Your task to perform on an android device: View the shopping cart on target.com. Search for usb-a to usb-b on target.com, select the first entry, add it to the cart, then select checkout. Image 0: 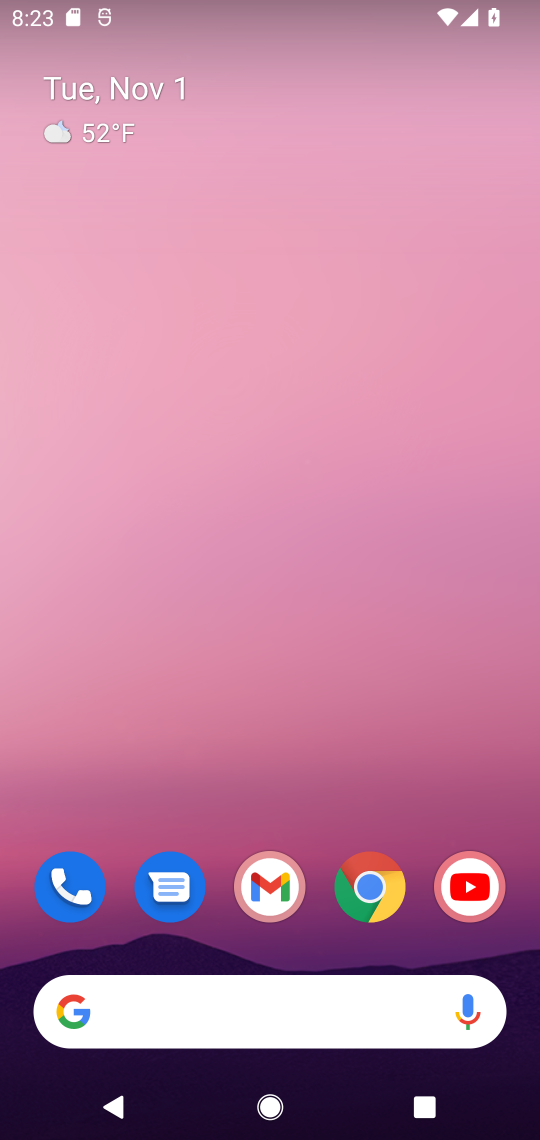
Step 0: drag from (274, 967) to (348, 4)
Your task to perform on an android device: View the shopping cart on target.com. Search for usb-a to usb-b on target.com, select the first entry, add it to the cart, then select checkout. Image 1: 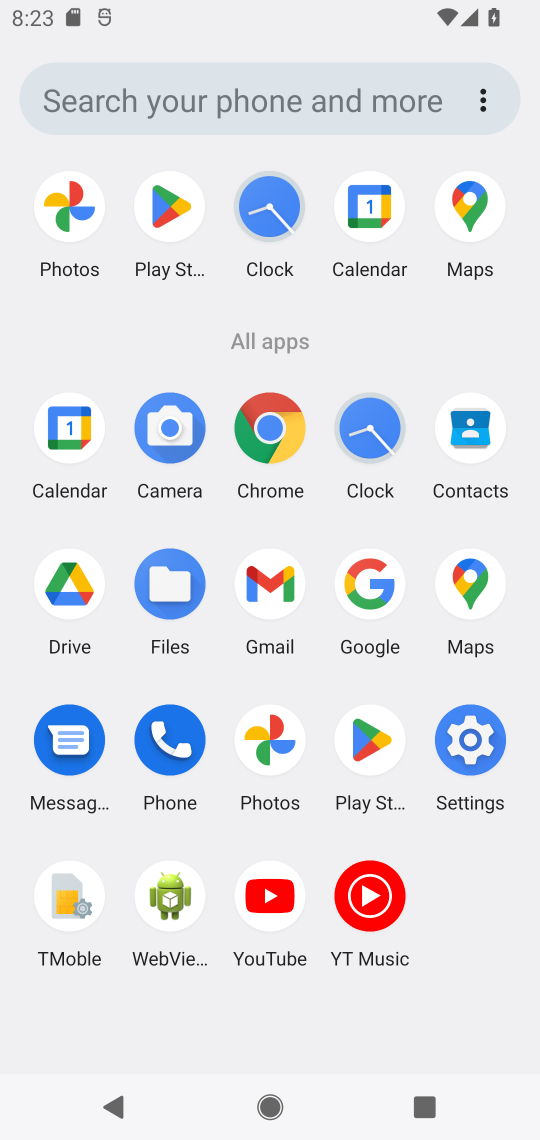
Step 1: click (360, 584)
Your task to perform on an android device: View the shopping cart on target.com. Search for usb-a to usb-b on target.com, select the first entry, add it to the cart, then select checkout. Image 2: 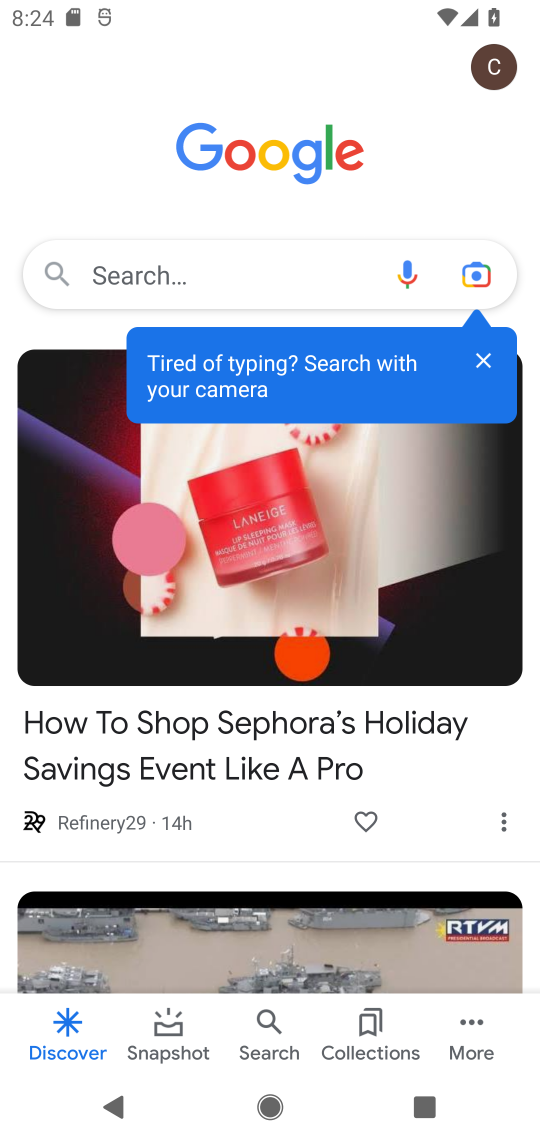
Step 2: click (304, 267)
Your task to perform on an android device: View the shopping cart on target.com. Search for usb-a to usb-b on target.com, select the first entry, add it to the cart, then select checkout. Image 3: 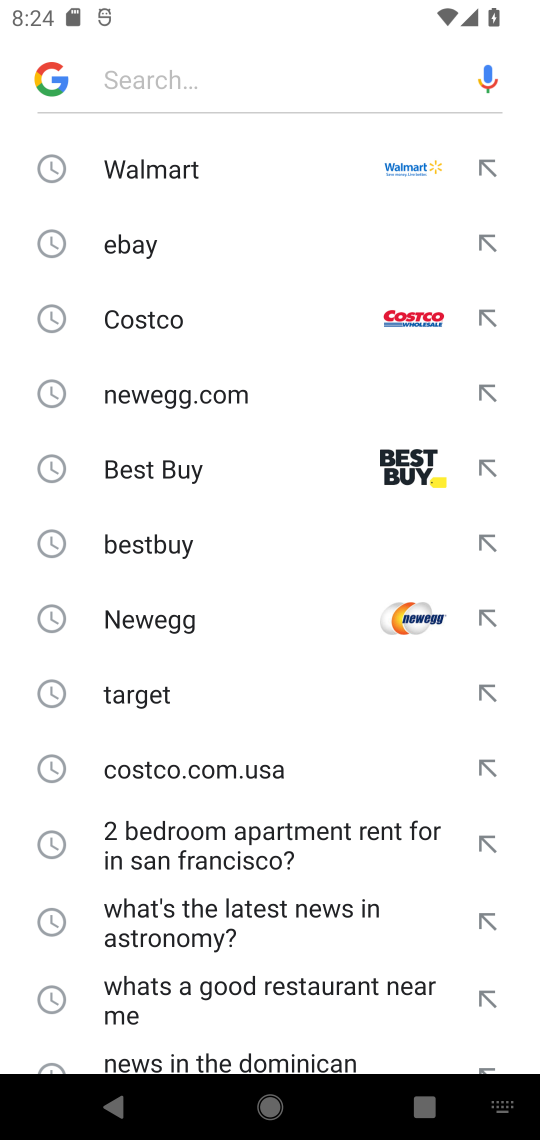
Step 3: type "target.com"
Your task to perform on an android device: View the shopping cart on target.com. Search for usb-a to usb-b on target.com, select the first entry, add it to the cart, then select checkout. Image 4: 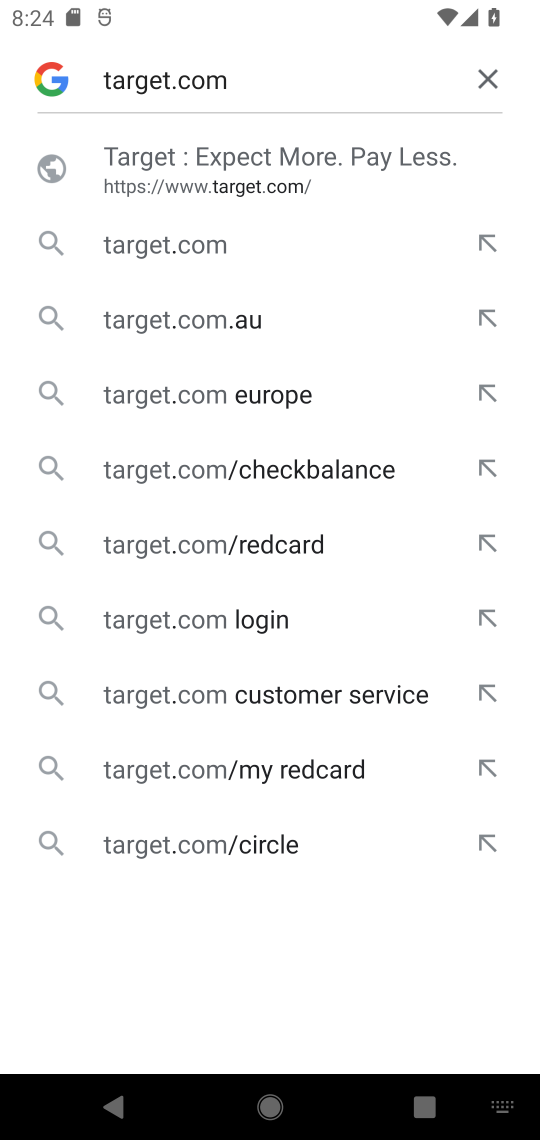
Step 4: click (161, 175)
Your task to perform on an android device: View the shopping cart on target.com. Search for usb-a to usb-b on target.com, select the first entry, add it to the cart, then select checkout. Image 5: 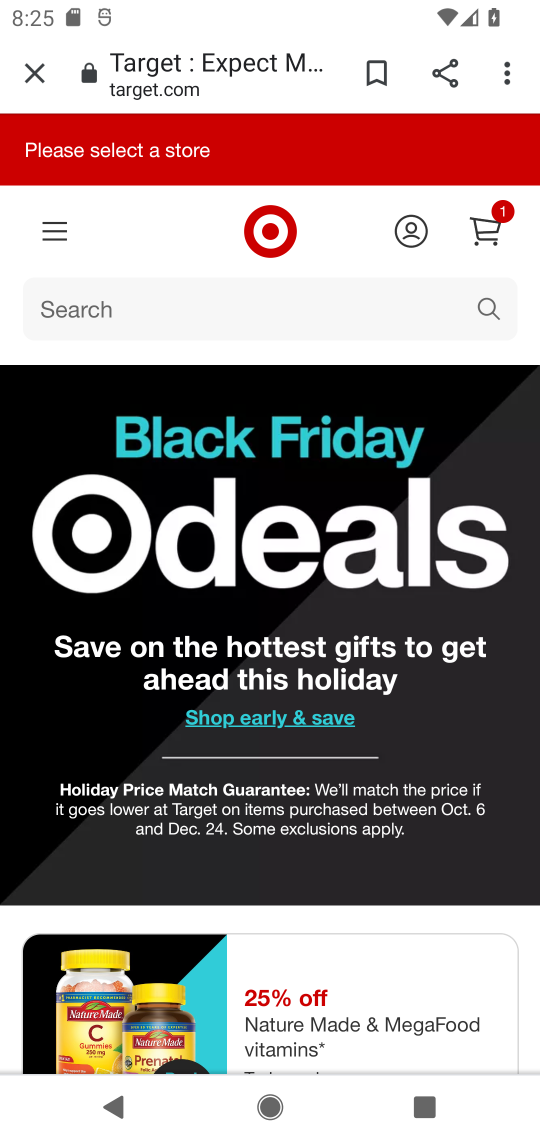
Step 5: click (259, 297)
Your task to perform on an android device: View the shopping cart on target.com. Search for usb-a to usb-b on target.com, select the first entry, add it to the cart, then select checkout. Image 6: 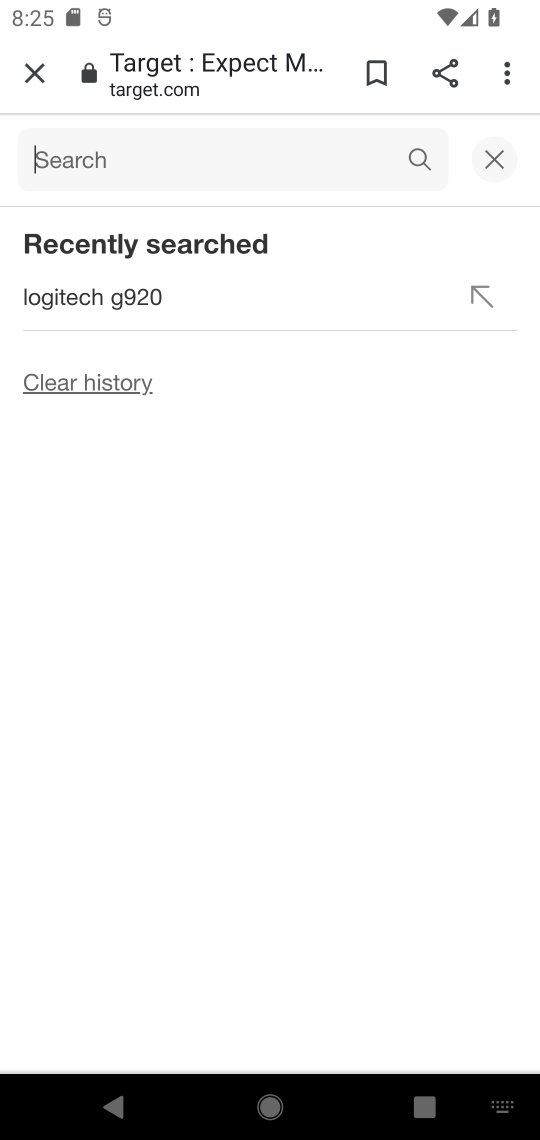
Step 6: type "usb-a to usb-b"
Your task to perform on an android device: View the shopping cart on target.com. Search for usb-a to usb-b on target.com, select the first entry, add it to the cart, then select checkout. Image 7: 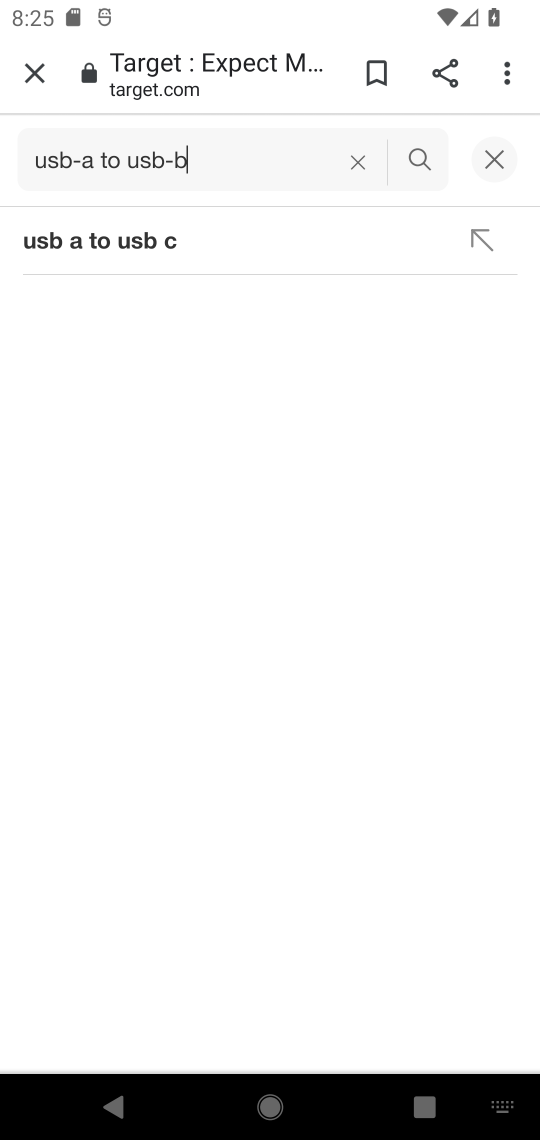
Step 7: click (158, 236)
Your task to perform on an android device: View the shopping cart on target.com. Search for usb-a to usb-b on target.com, select the first entry, add it to the cart, then select checkout. Image 8: 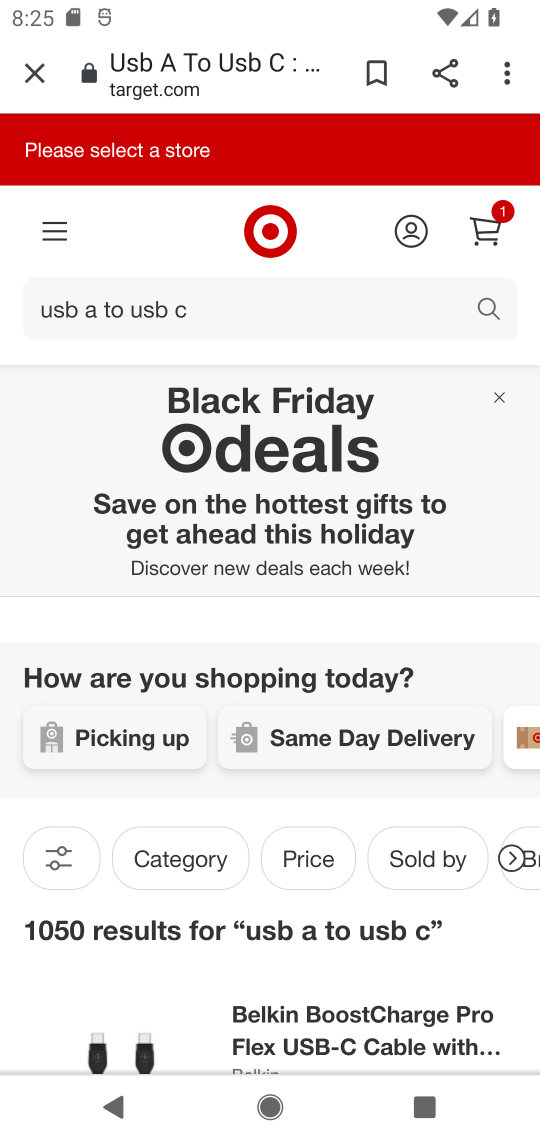
Step 8: click (279, 1038)
Your task to perform on an android device: View the shopping cart on target.com. Search for usb-a to usb-b on target.com, select the first entry, add it to the cart, then select checkout. Image 9: 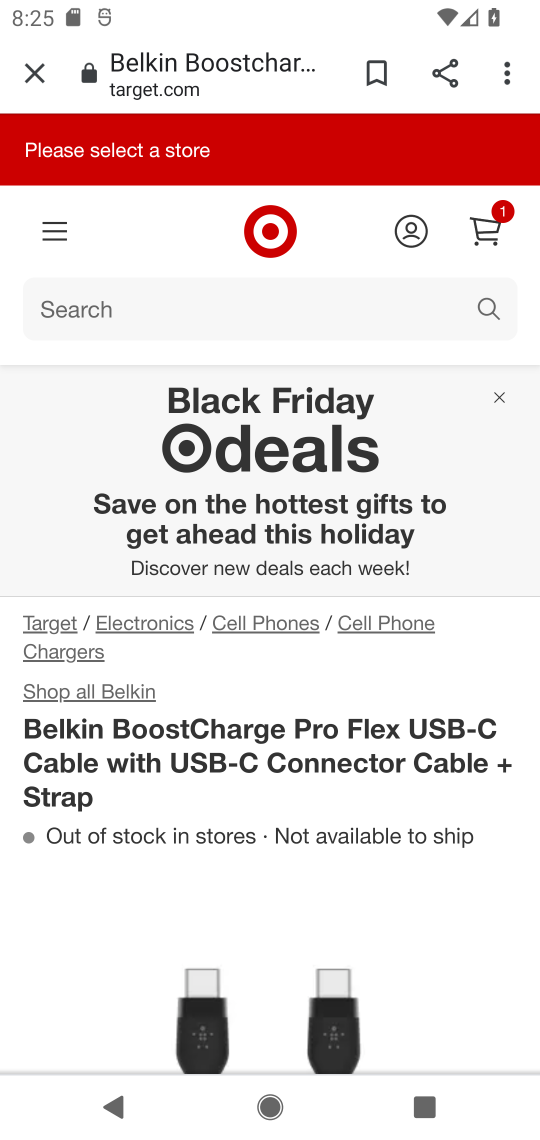
Step 9: task complete